Your task to perform on an android device: Go to accessibility settings Image 0: 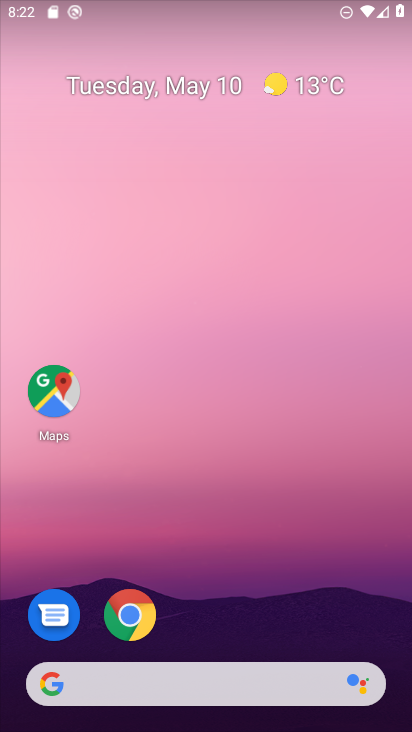
Step 0: drag from (228, 561) to (130, 93)
Your task to perform on an android device: Go to accessibility settings Image 1: 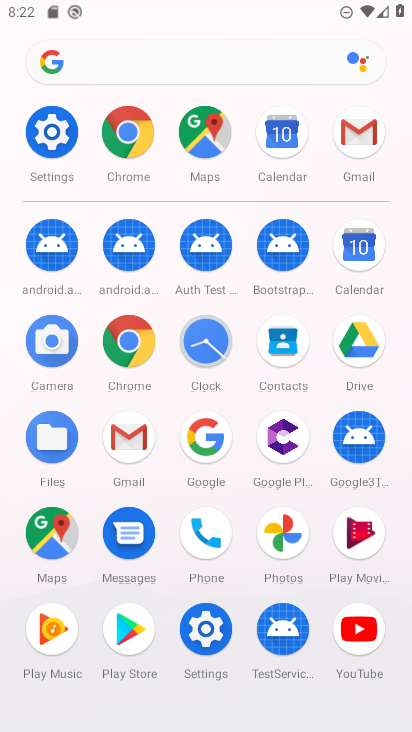
Step 1: click (50, 132)
Your task to perform on an android device: Go to accessibility settings Image 2: 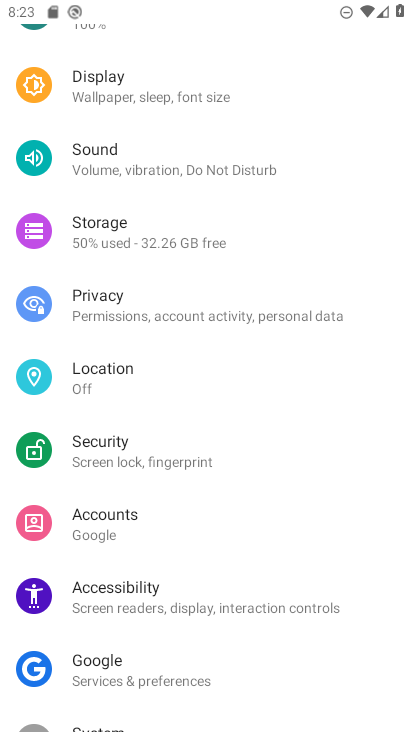
Step 2: click (123, 590)
Your task to perform on an android device: Go to accessibility settings Image 3: 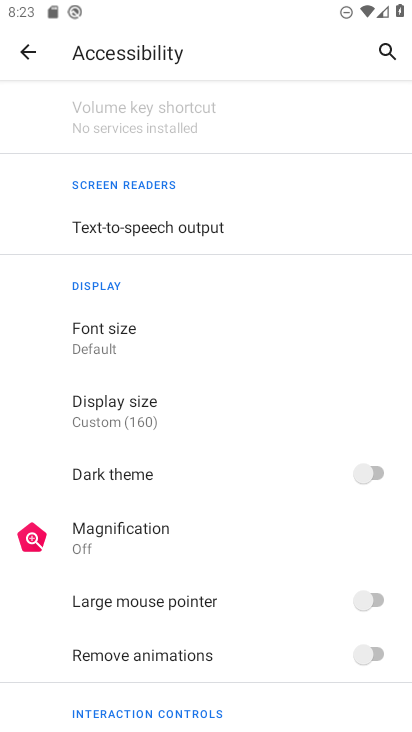
Step 3: task complete